Your task to perform on an android device: Open Google Maps and go to "Timeline" Image 0: 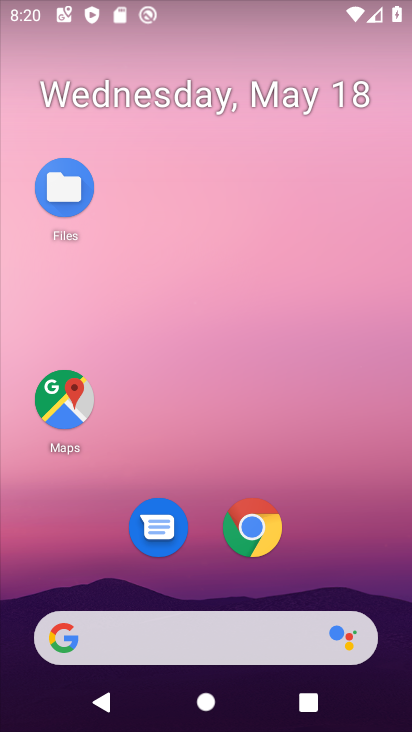
Step 0: drag from (376, 664) to (166, 16)
Your task to perform on an android device: Open Google Maps and go to "Timeline" Image 1: 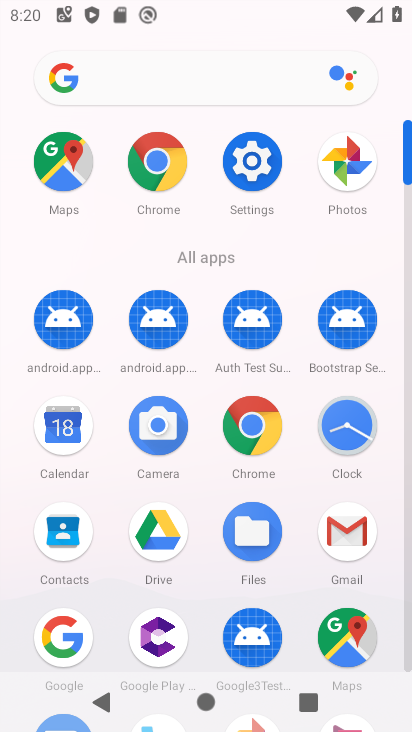
Step 1: click (363, 636)
Your task to perform on an android device: Open Google Maps and go to "Timeline" Image 2: 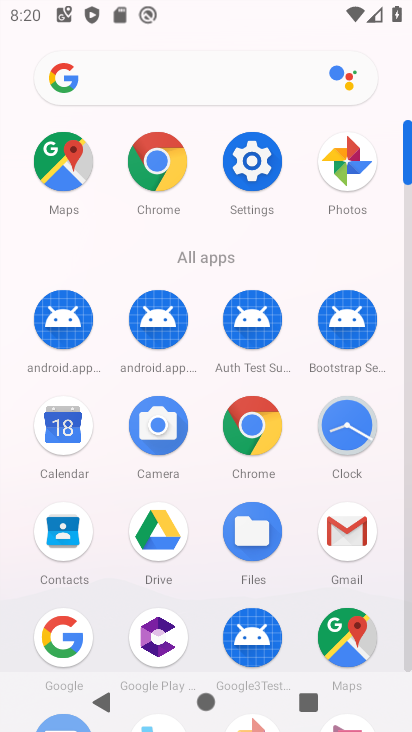
Step 2: click (363, 636)
Your task to perform on an android device: Open Google Maps and go to "Timeline" Image 3: 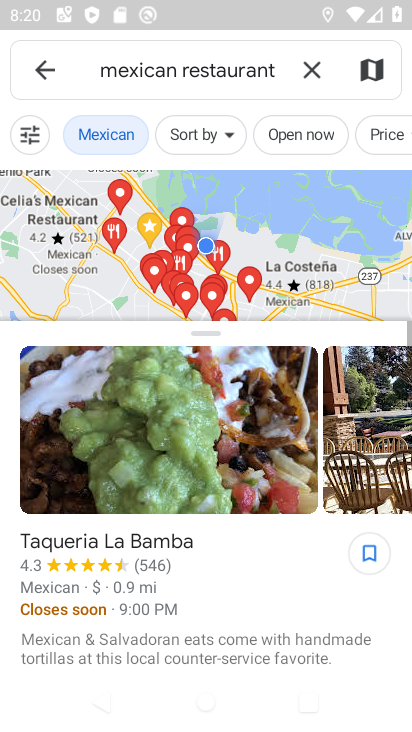
Step 3: click (36, 74)
Your task to perform on an android device: Open Google Maps and go to "Timeline" Image 4: 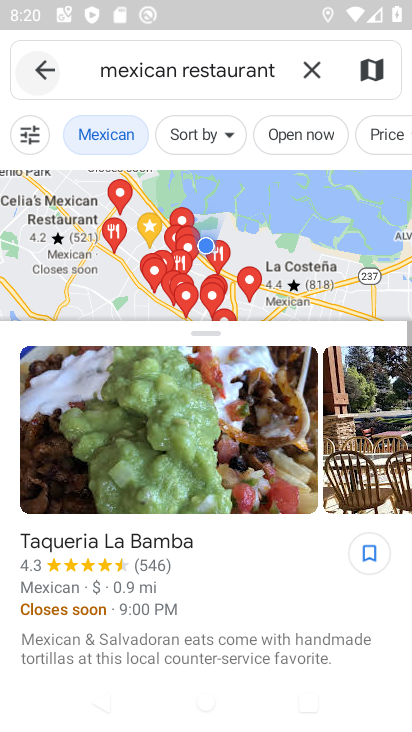
Step 4: click (36, 72)
Your task to perform on an android device: Open Google Maps and go to "Timeline" Image 5: 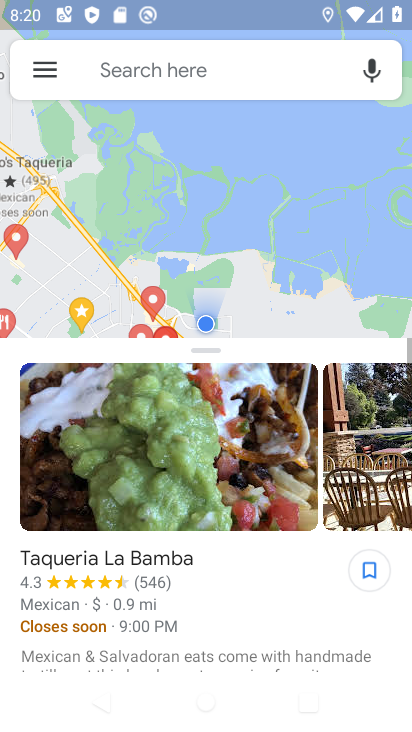
Step 5: click (37, 72)
Your task to perform on an android device: Open Google Maps and go to "Timeline" Image 6: 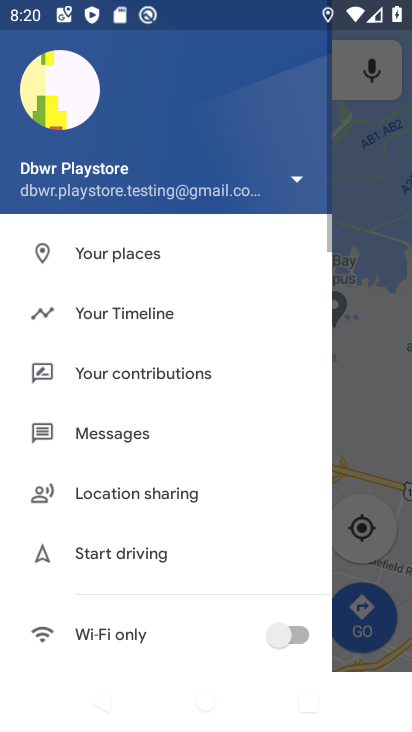
Step 6: click (49, 62)
Your task to perform on an android device: Open Google Maps and go to "Timeline" Image 7: 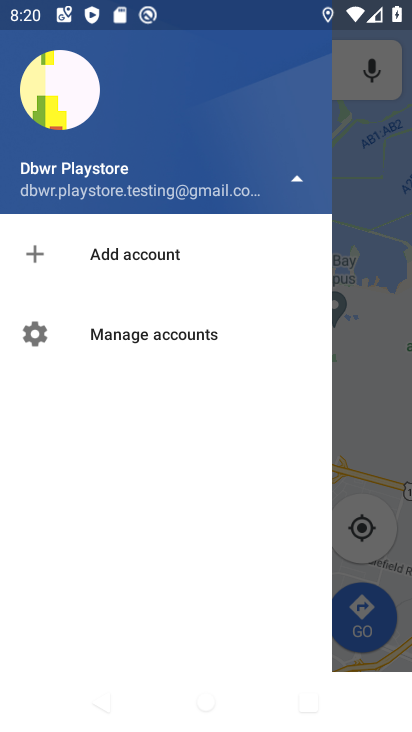
Step 7: click (155, 302)
Your task to perform on an android device: Open Google Maps and go to "Timeline" Image 8: 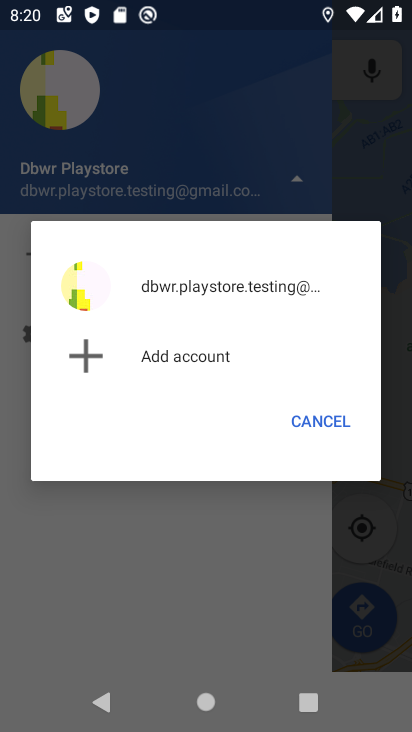
Step 8: click (290, 178)
Your task to perform on an android device: Open Google Maps and go to "Timeline" Image 9: 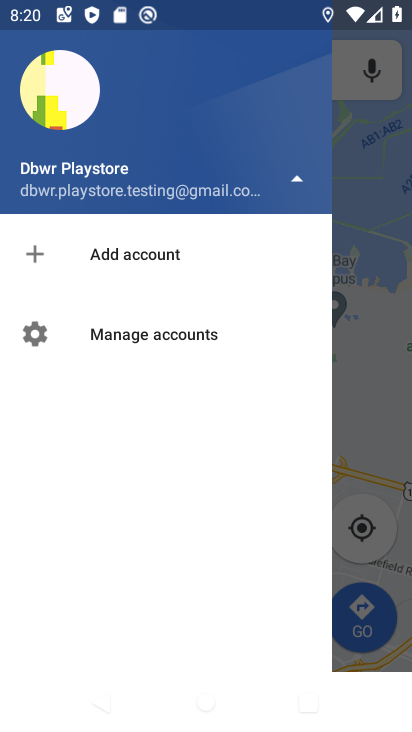
Step 9: click (323, 413)
Your task to perform on an android device: Open Google Maps and go to "Timeline" Image 10: 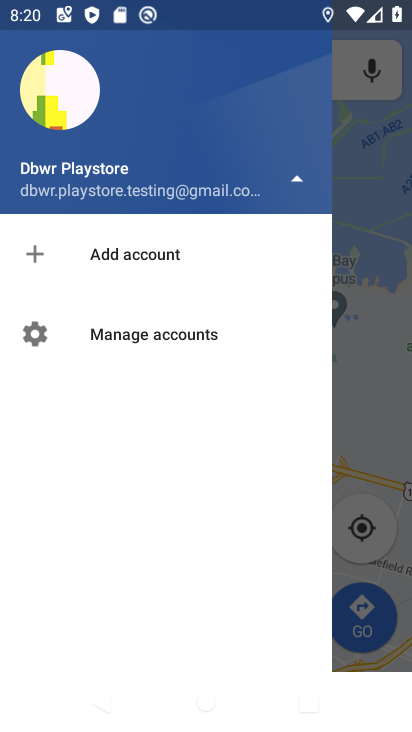
Step 10: click (289, 178)
Your task to perform on an android device: Open Google Maps and go to "Timeline" Image 11: 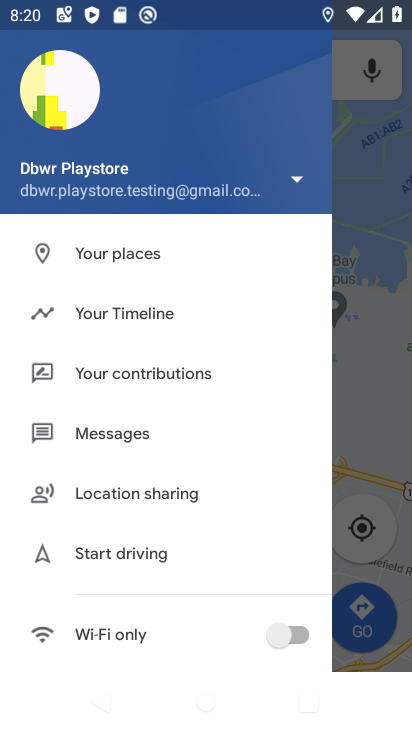
Step 11: click (147, 313)
Your task to perform on an android device: Open Google Maps and go to "Timeline" Image 12: 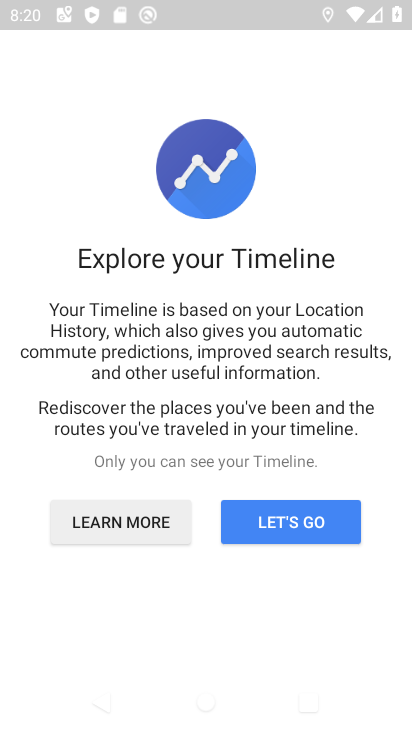
Step 12: task complete